Your task to perform on an android device: move an email to a new category in the gmail app Image 0: 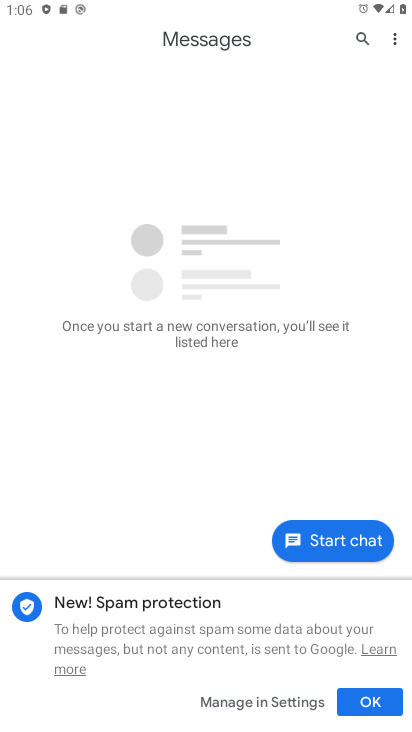
Step 0: press home button
Your task to perform on an android device: move an email to a new category in the gmail app Image 1: 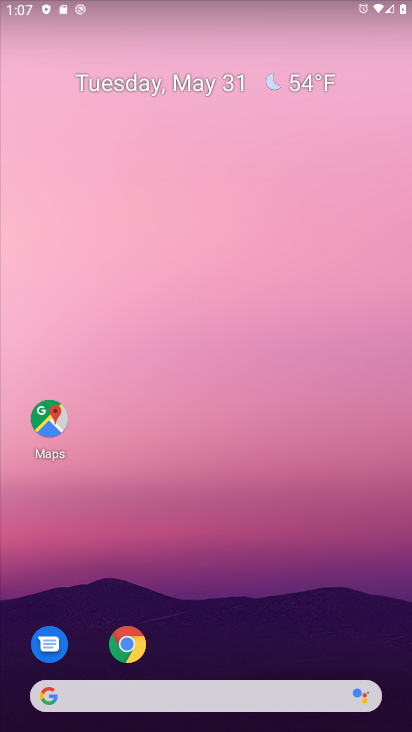
Step 1: drag from (283, 645) to (319, 201)
Your task to perform on an android device: move an email to a new category in the gmail app Image 2: 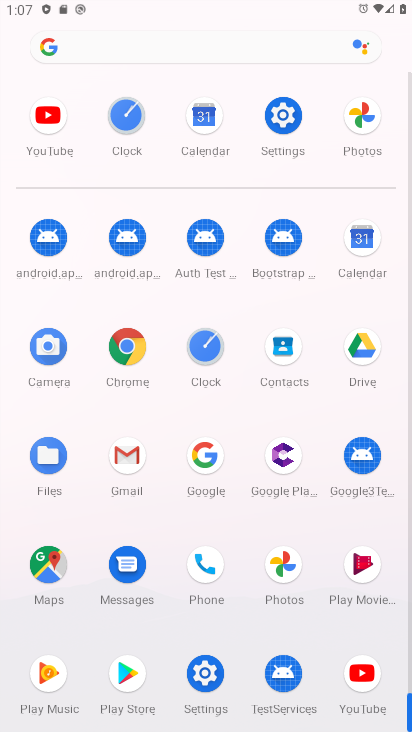
Step 2: click (110, 467)
Your task to perform on an android device: move an email to a new category in the gmail app Image 3: 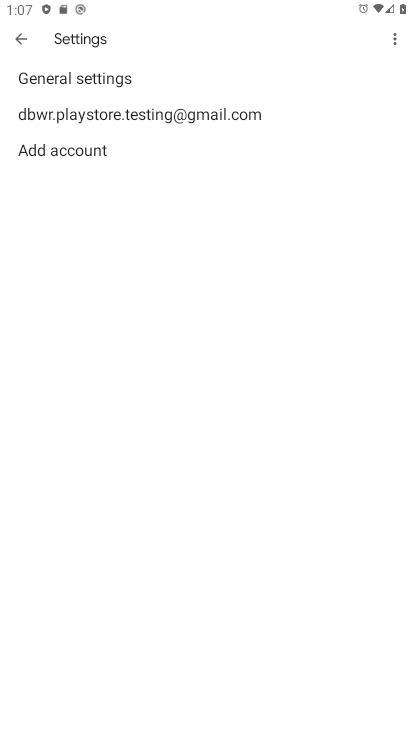
Step 3: click (23, 37)
Your task to perform on an android device: move an email to a new category in the gmail app Image 4: 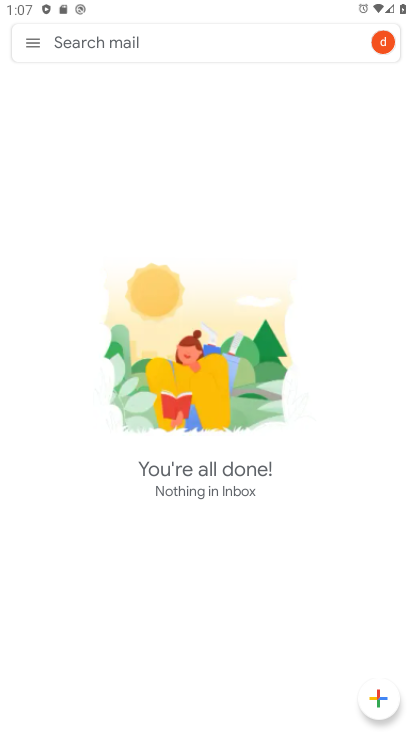
Step 4: click (30, 42)
Your task to perform on an android device: move an email to a new category in the gmail app Image 5: 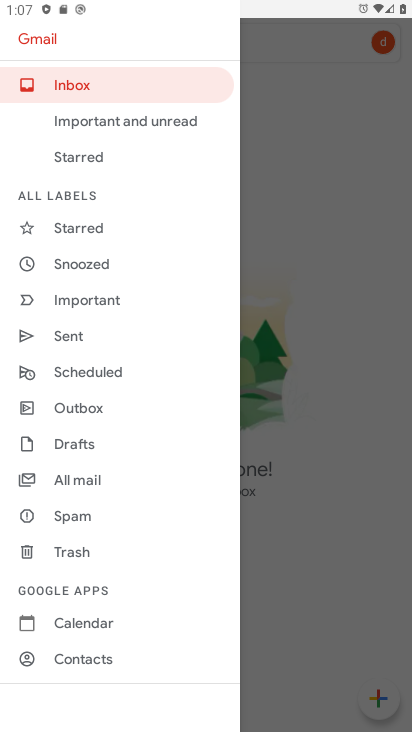
Step 5: click (71, 481)
Your task to perform on an android device: move an email to a new category in the gmail app Image 6: 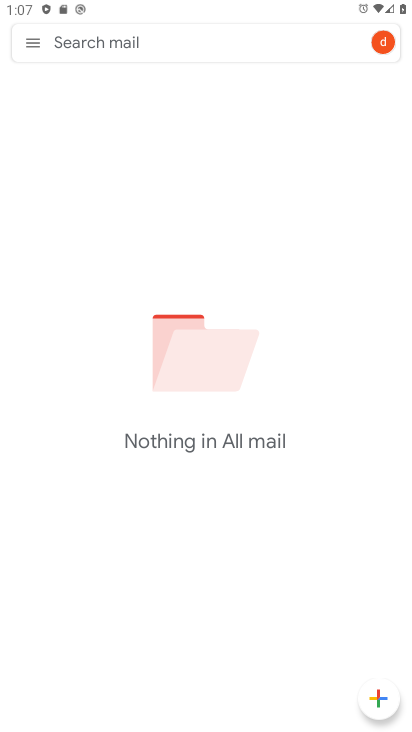
Step 6: task complete